Your task to perform on an android device: check battery use Image 0: 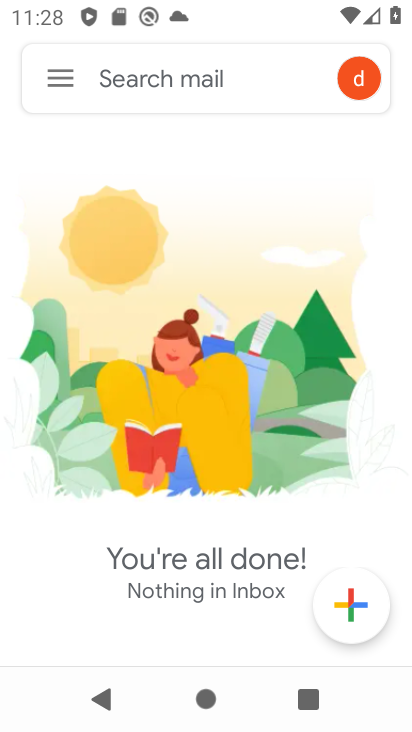
Step 0: press home button
Your task to perform on an android device: check battery use Image 1: 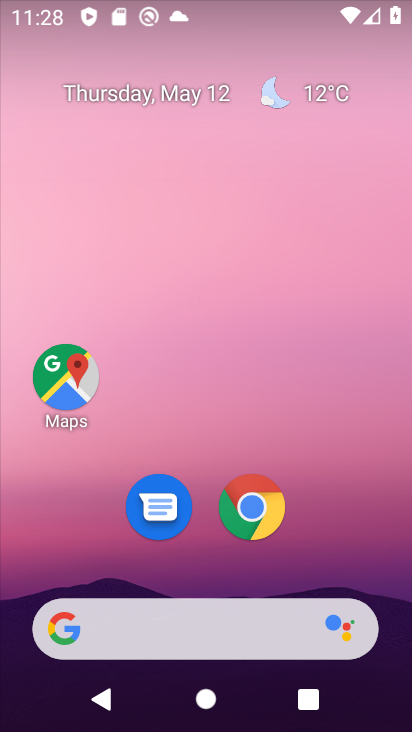
Step 1: drag from (198, 569) to (208, 34)
Your task to perform on an android device: check battery use Image 2: 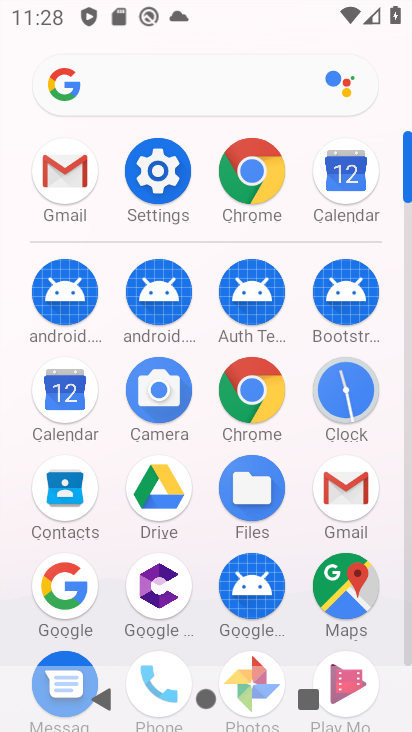
Step 2: click (156, 168)
Your task to perform on an android device: check battery use Image 3: 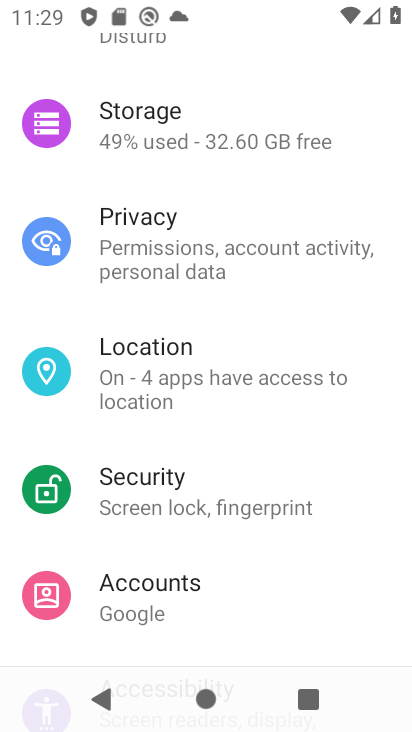
Step 3: drag from (259, 225) to (260, 657)
Your task to perform on an android device: check battery use Image 4: 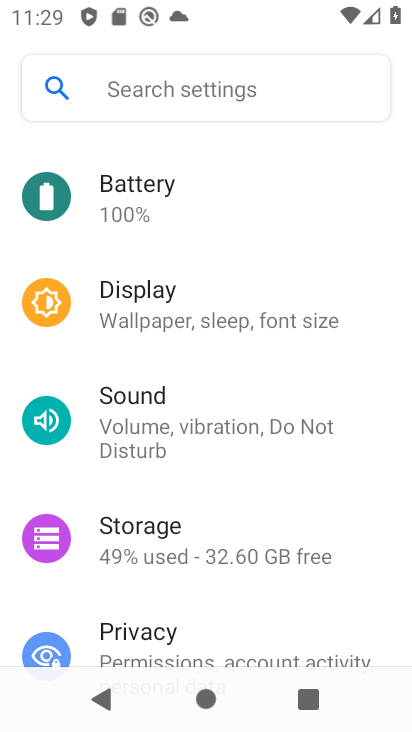
Step 4: click (165, 203)
Your task to perform on an android device: check battery use Image 5: 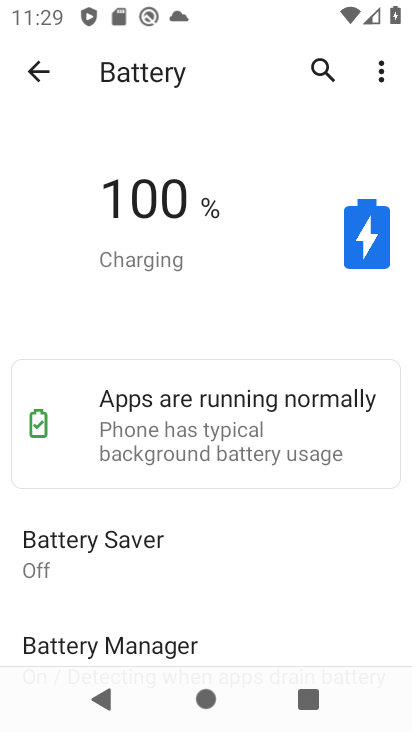
Step 5: click (381, 80)
Your task to perform on an android device: check battery use Image 6: 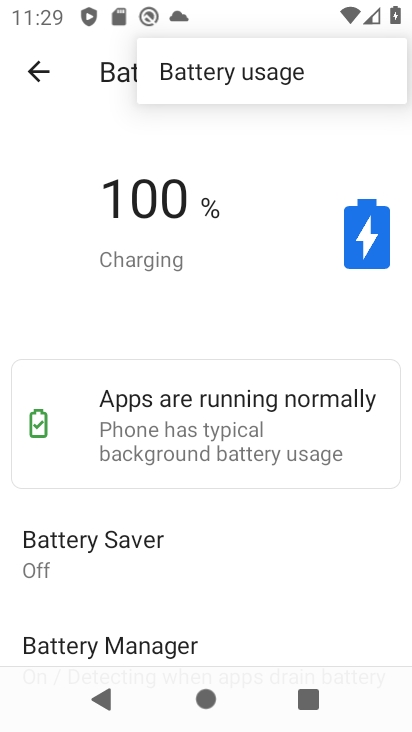
Step 6: click (279, 65)
Your task to perform on an android device: check battery use Image 7: 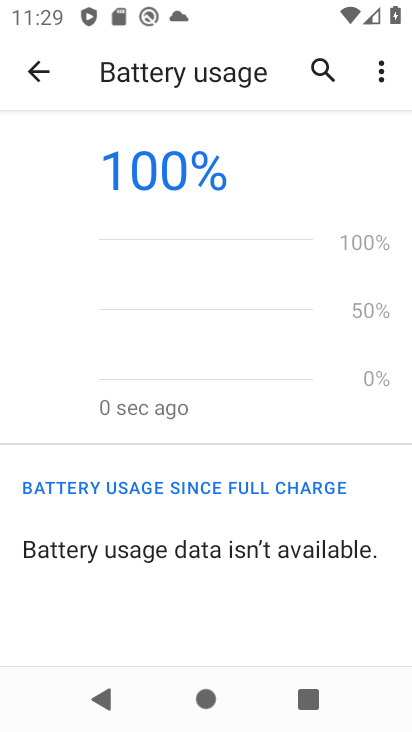
Step 7: task complete